Your task to perform on an android device: Do I have any events tomorrow? Image 0: 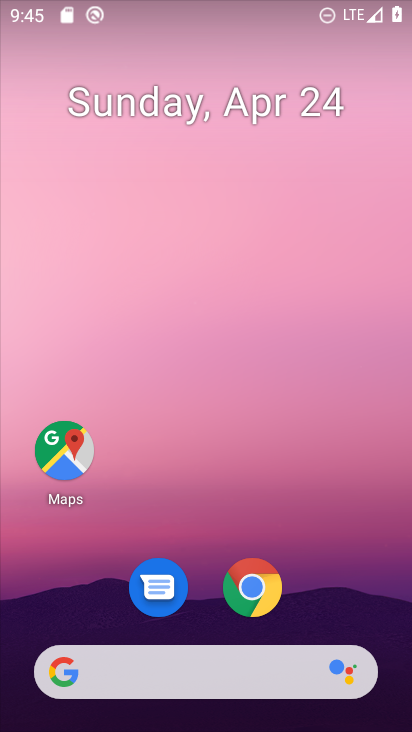
Step 0: drag from (358, 571) to (339, 50)
Your task to perform on an android device: Do I have any events tomorrow? Image 1: 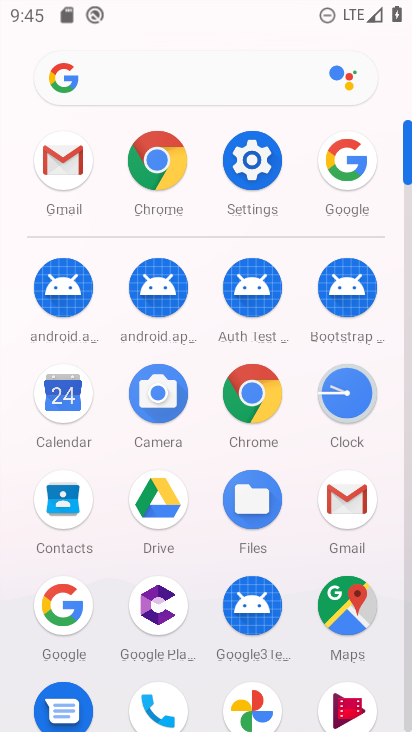
Step 1: drag from (283, 567) to (283, 258)
Your task to perform on an android device: Do I have any events tomorrow? Image 2: 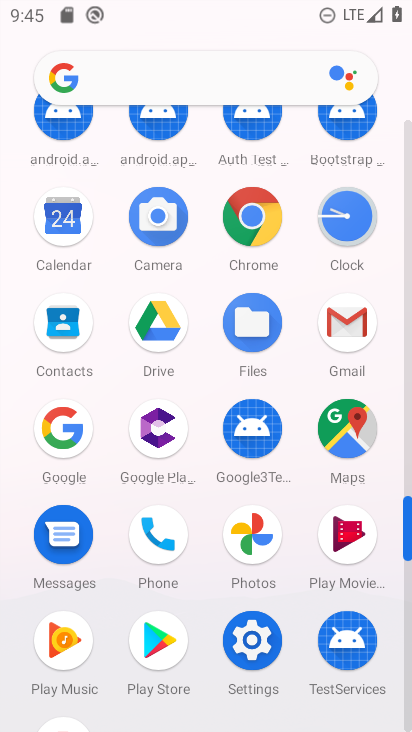
Step 2: click (63, 231)
Your task to perform on an android device: Do I have any events tomorrow? Image 3: 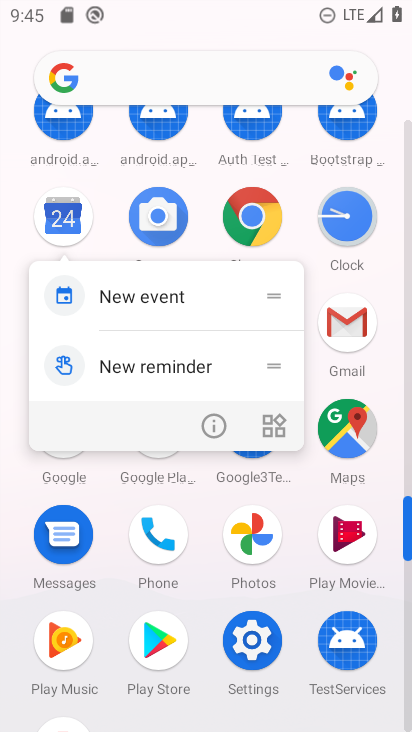
Step 3: click (68, 238)
Your task to perform on an android device: Do I have any events tomorrow? Image 4: 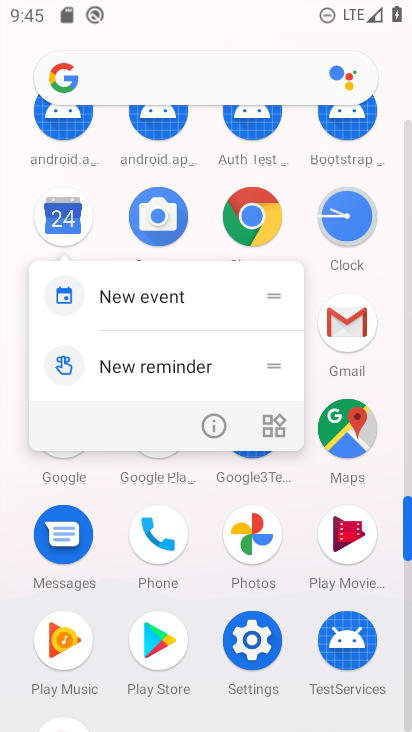
Step 4: click (65, 223)
Your task to perform on an android device: Do I have any events tomorrow? Image 5: 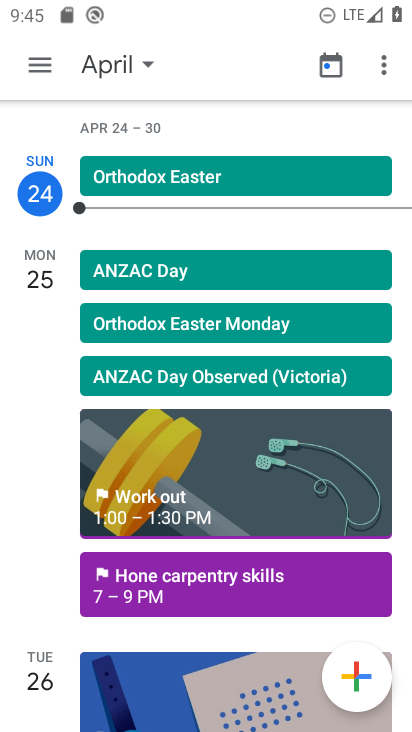
Step 5: click (48, 275)
Your task to perform on an android device: Do I have any events tomorrow? Image 6: 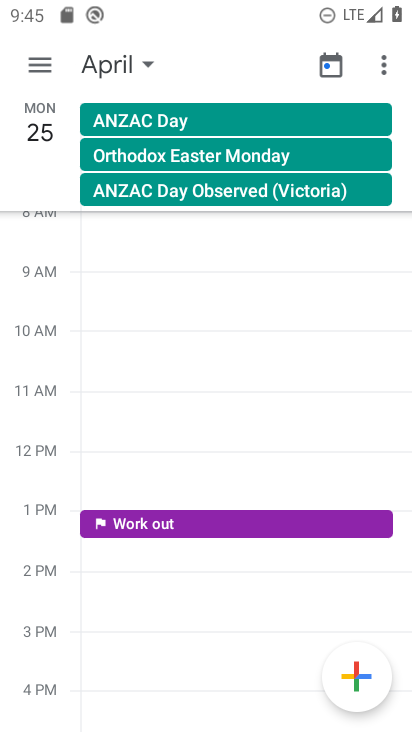
Step 6: click (37, 68)
Your task to perform on an android device: Do I have any events tomorrow? Image 7: 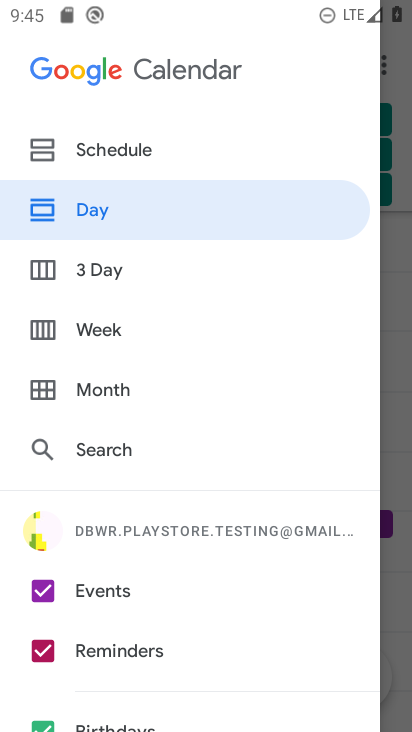
Step 7: click (395, 257)
Your task to perform on an android device: Do I have any events tomorrow? Image 8: 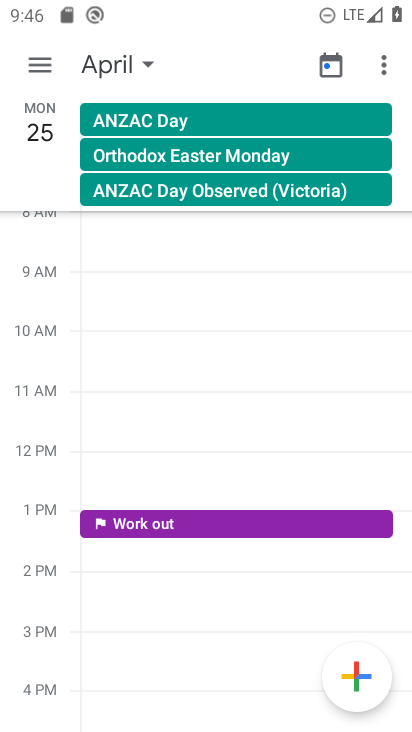
Step 8: task complete